Your task to perform on an android device: Go to Yahoo.com Image 0: 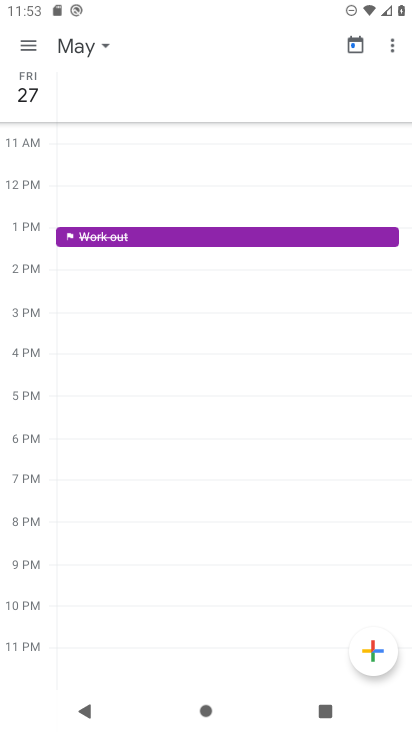
Step 0: press home button
Your task to perform on an android device: Go to Yahoo.com Image 1: 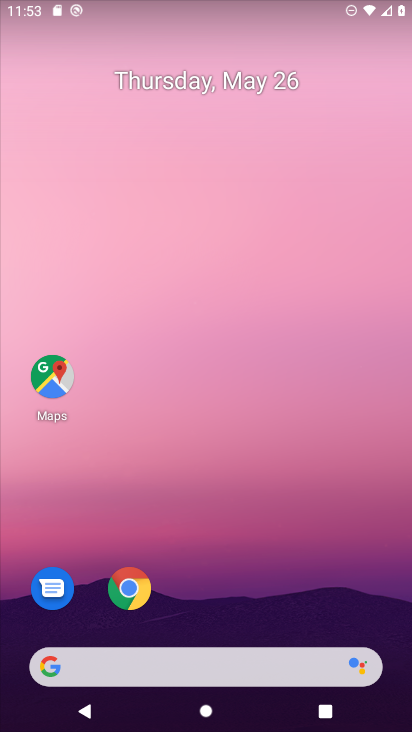
Step 1: click (130, 587)
Your task to perform on an android device: Go to Yahoo.com Image 2: 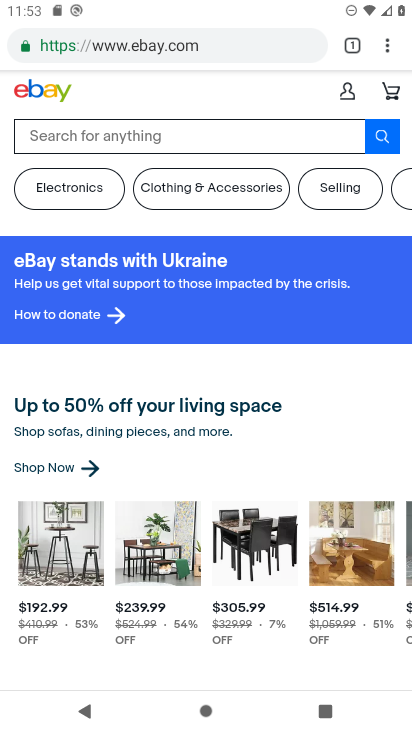
Step 2: click (234, 47)
Your task to perform on an android device: Go to Yahoo.com Image 3: 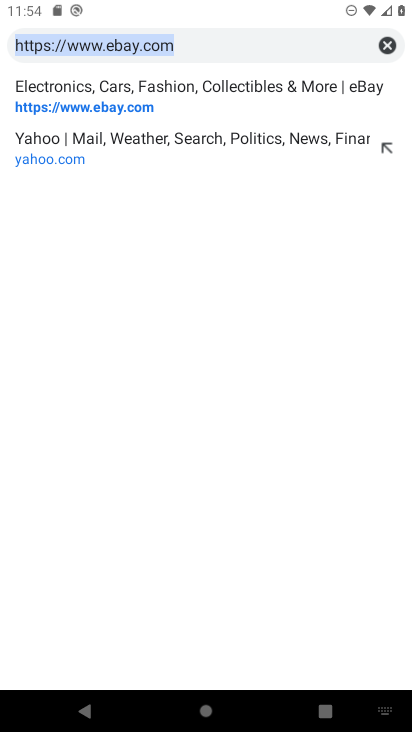
Step 3: click (381, 42)
Your task to perform on an android device: Go to Yahoo.com Image 4: 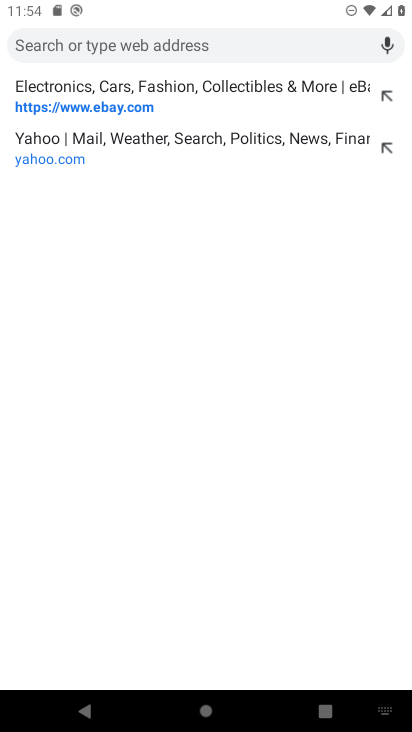
Step 4: type "yahoo.com"
Your task to perform on an android device: Go to Yahoo.com Image 5: 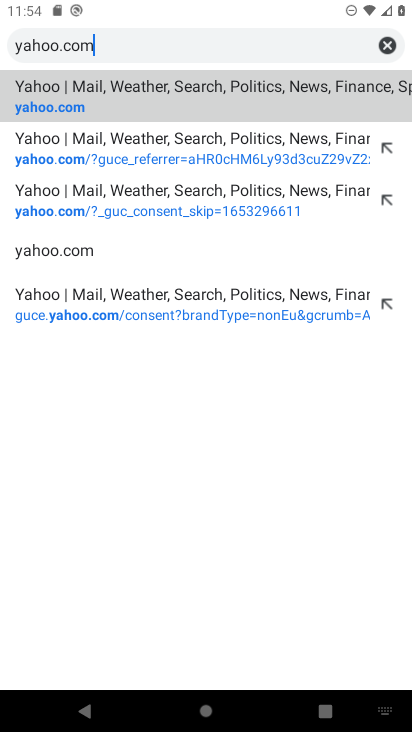
Step 5: click (73, 88)
Your task to perform on an android device: Go to Yahoo.com Image 6: 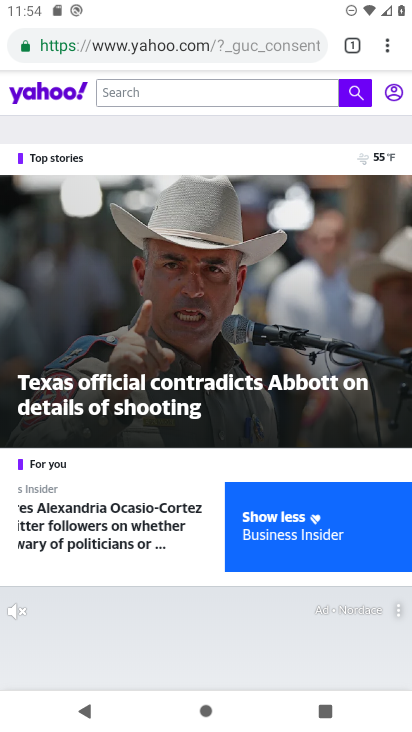
Step 6: task complete